Your task to perform on an android device: open device folders in google photos Image 0: 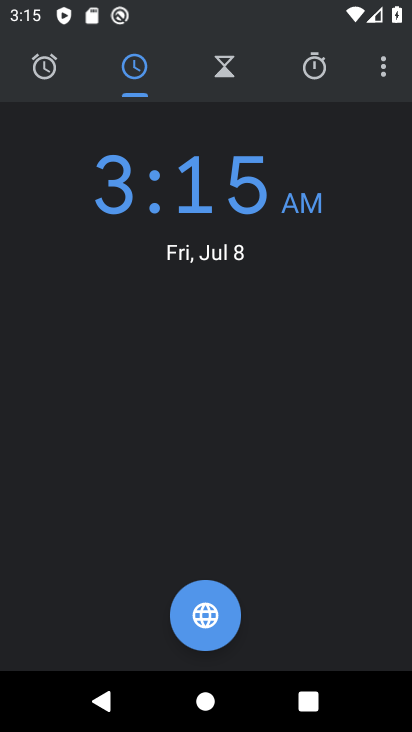
Step 0: press home button
Your task to perform on an android device: open device folders in google photos Image 1: 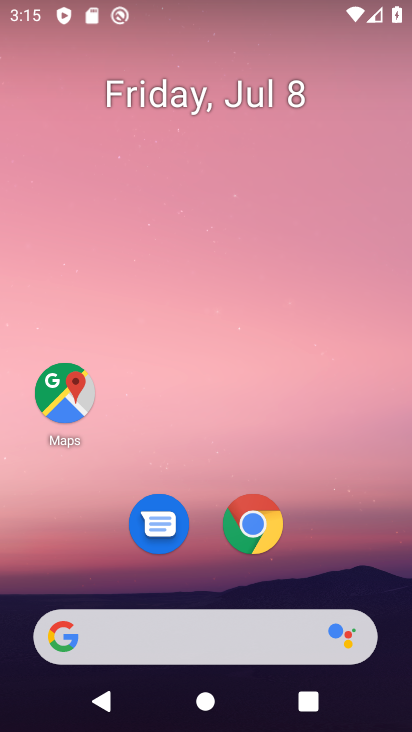
Step 1: drag from (320, 551) to (260, 0)
Your task to perform on an android device: open device folders in google photos Image 2: 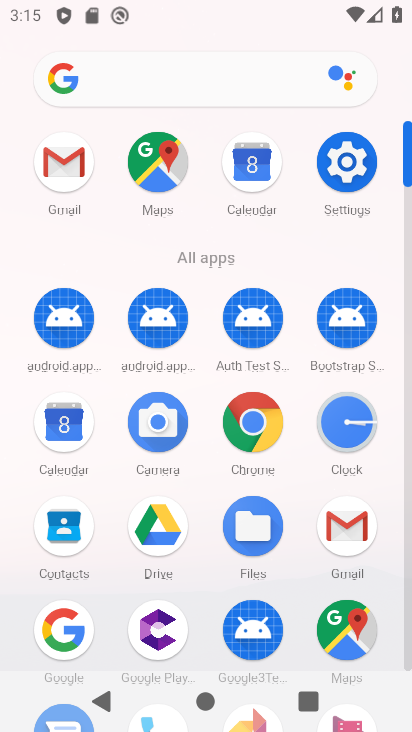
Step 2: drag from (199, 570) to (171, 231)
Your task to perform on an android device: open device folders in google photos Image 3: 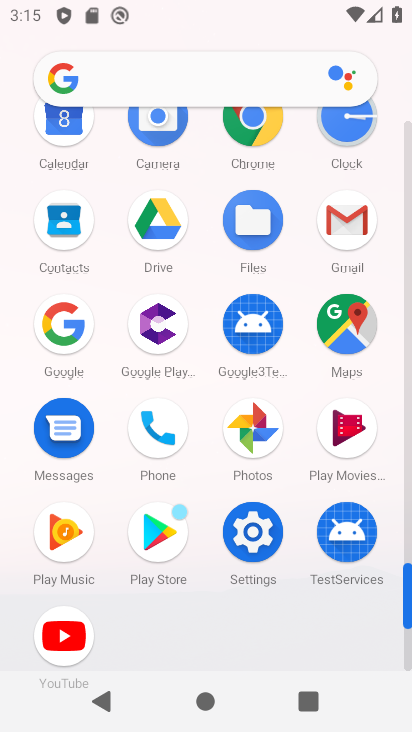
Step 3: click (264, 427)
Your task to perform on an android device: open device folders in google photos Image 4: 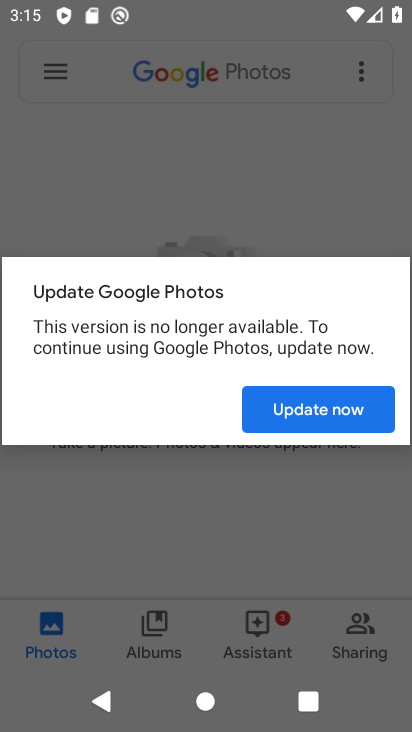
Step 4: click (302, 411)
Your task to perform on an android device: open device folders in google photos Image 5: 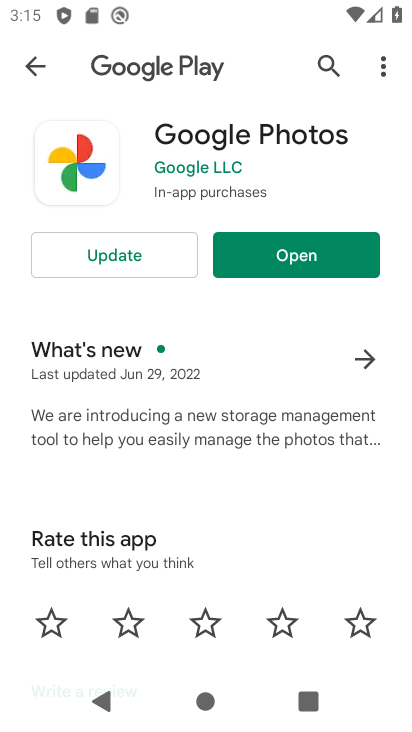
Step 5: click (327, 259)
Your task to perform on an android device: open device folders in google photos Image 6: 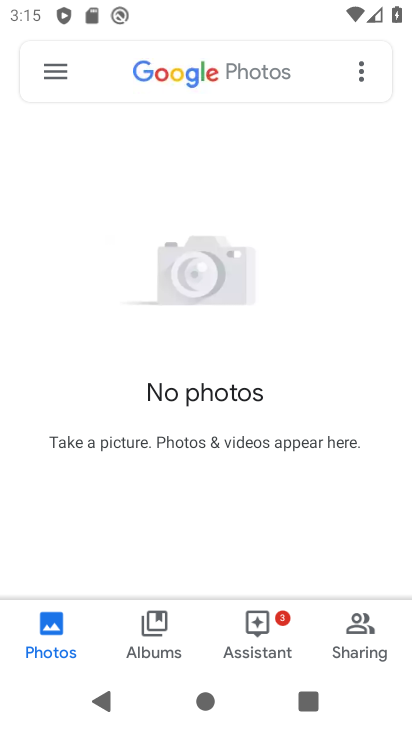
Step 6: click (63, 69)
Your task to perform on an android device: open device folders in google photos Image 7: 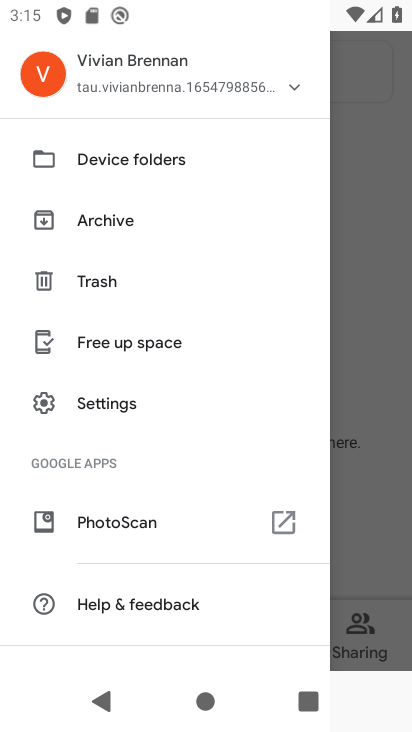
Step 7: click (91, 149)
Your task to perform on an android device: open device folders in google photos Image 8: 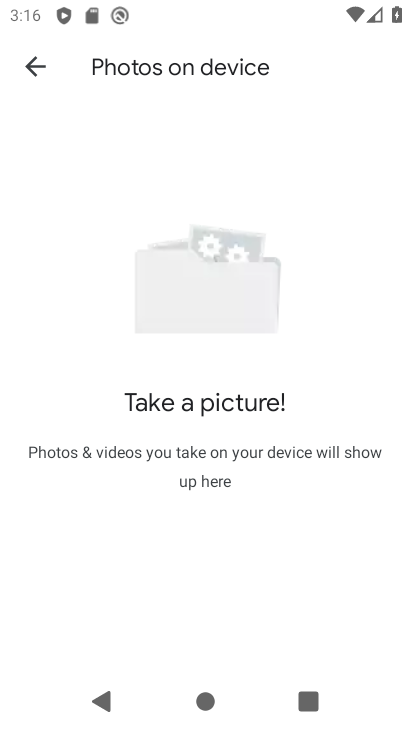
Step 8: task complete